Your task to perform on an android device: open wifi settings Image 0: 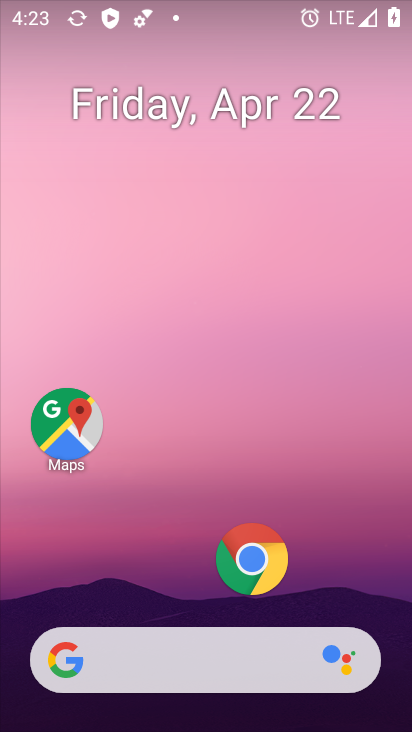
Step 0: drag from (166, 460) to (269, 10)
Your task to perform on an android device: open wifi settings Image 1: 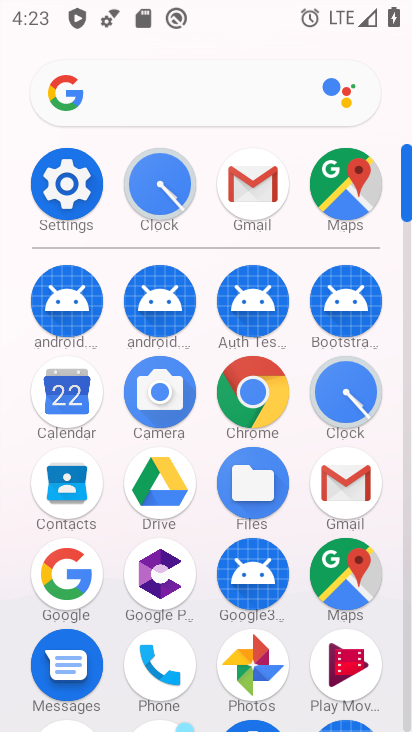
Step 1: click (68, 205)
Your task to perform on an android device: open wifi settings Image 2: 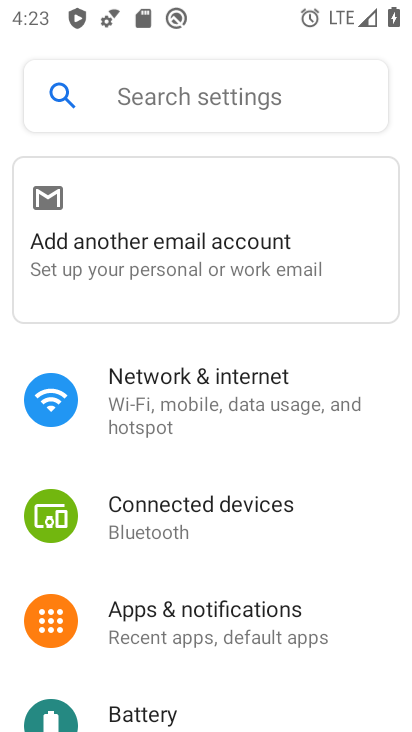
Step 2: click (180, 407)
Your task to perform on an android device: open wifi settings Image 3: 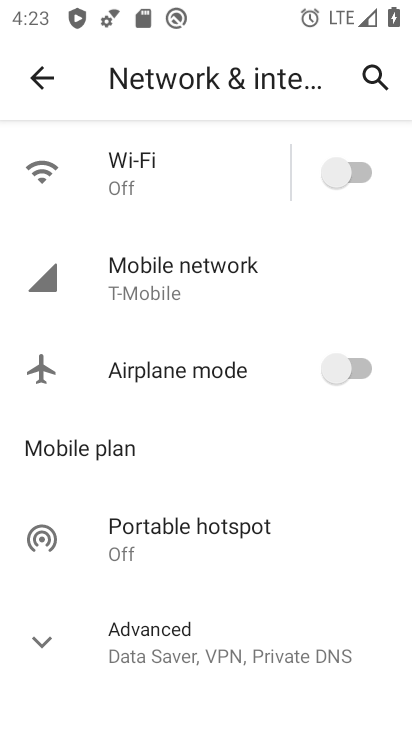
Step 3: click (127, 172)
Your task to perform on an android device: open wifi settings Image 4: 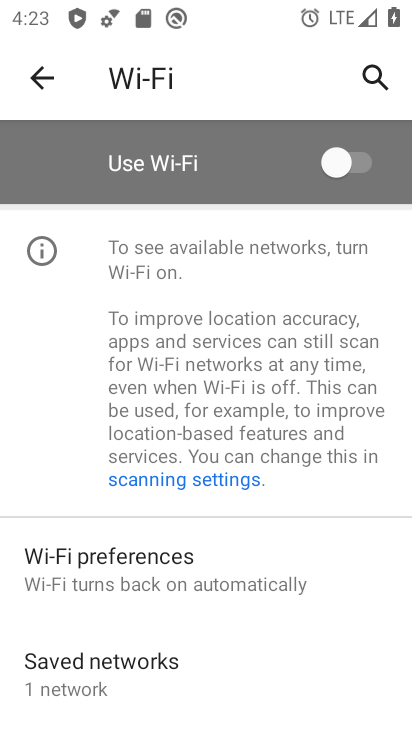
Step 4: task complete